Your task to perform on an android device: Open eBay Image 0: 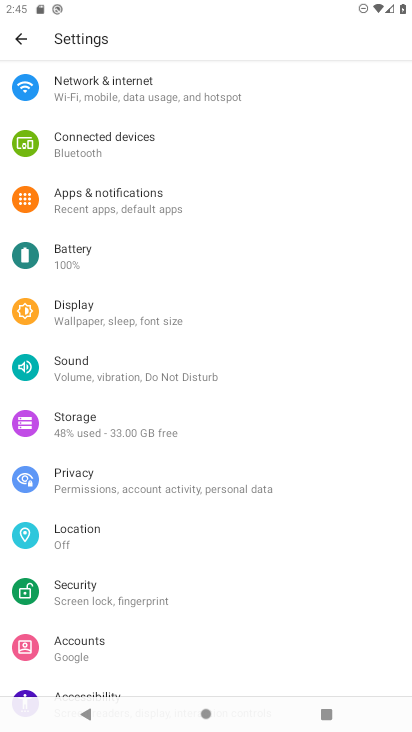
Step 0: click (206, 722)
Your task to perform on an android device: Open eBay Image 1: 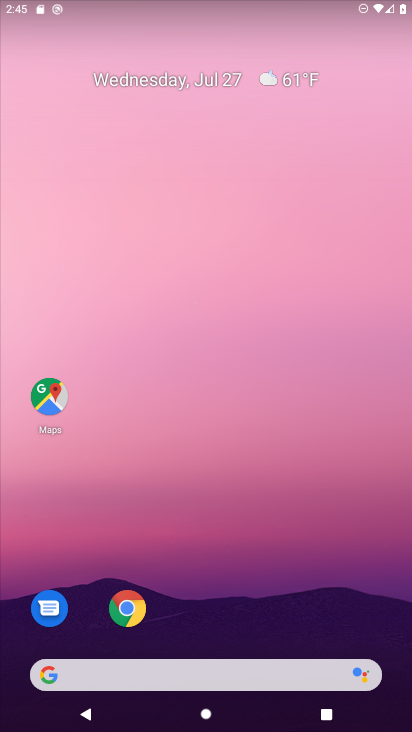
Step 1: click (119, 610)
Your task to perform on an android device: Open eBay Image 2: 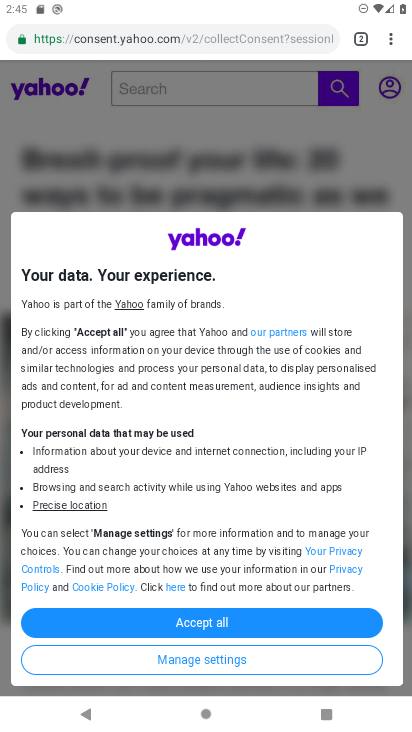
Step 2: click (362, 42)
Your task to perform on an android device: Open eBay Image 3: 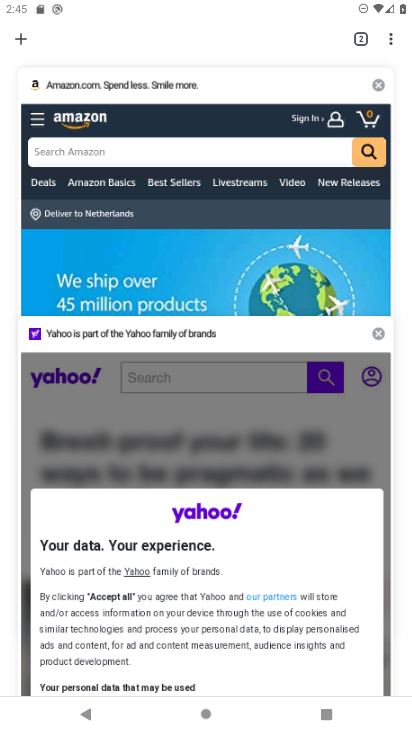
Step 3: click (362, 39)
Your task to perform on an android device: Open eBay Image 4: 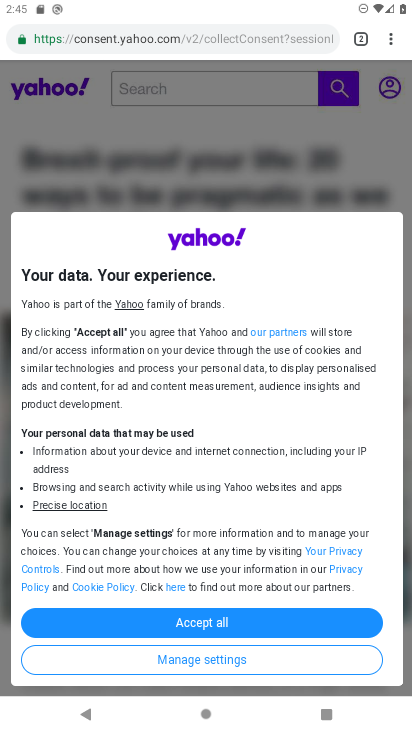
Step 4: click (353, 41)
Your task to perform on an android device: Open eBay Image 5: 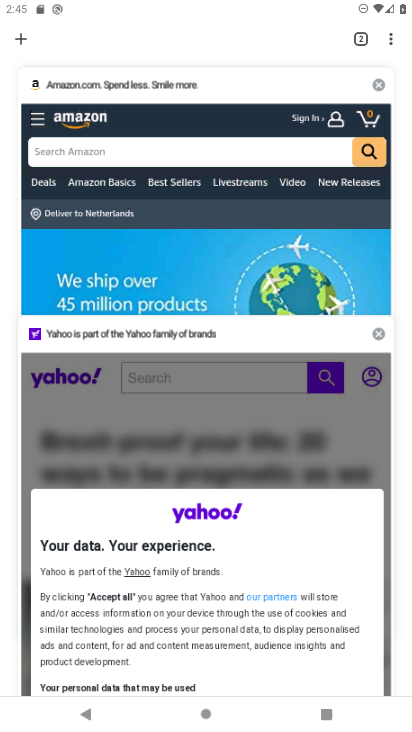
Step 5: click (16, 41)
Your task to perform on an android device: Open eBay Image 6: 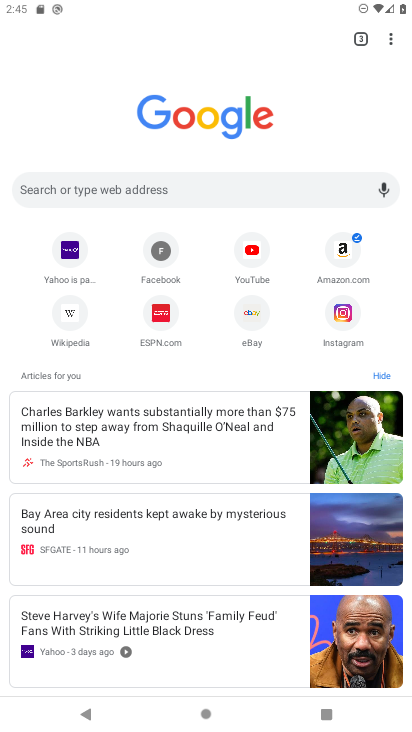
Step 6: click (244, 315)
Your task to perform on an android device: Open eBay Image 7: 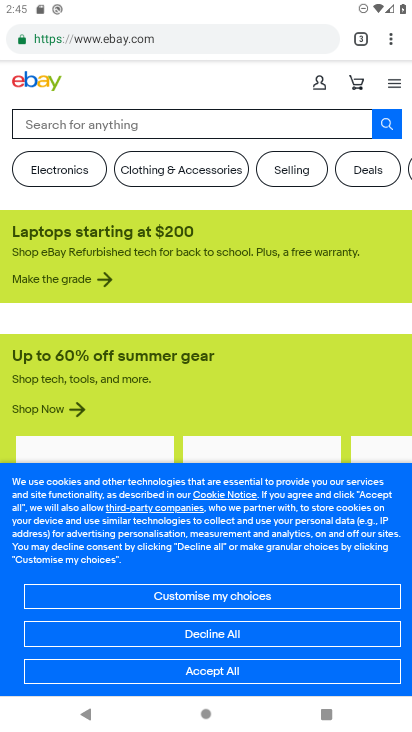
Step 7: task complete